Your task to perform on an android device: turn off priority inbox in the gmail app Image 0: 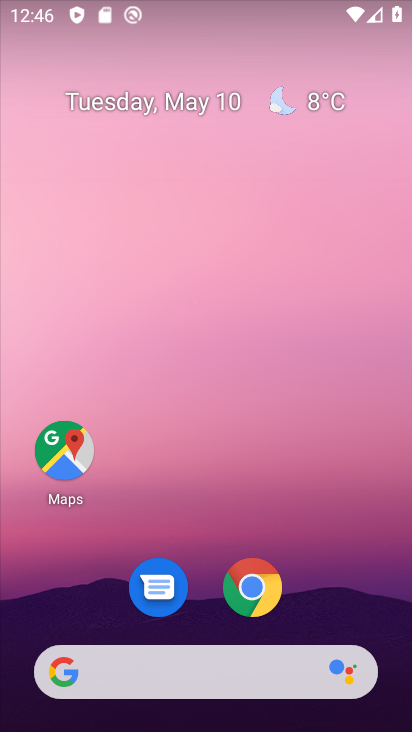
Step 0: drag from (347, 569) to (298, 125)
Your task to perform on an android device: turn off priority inbox in the gmail app Image 1: 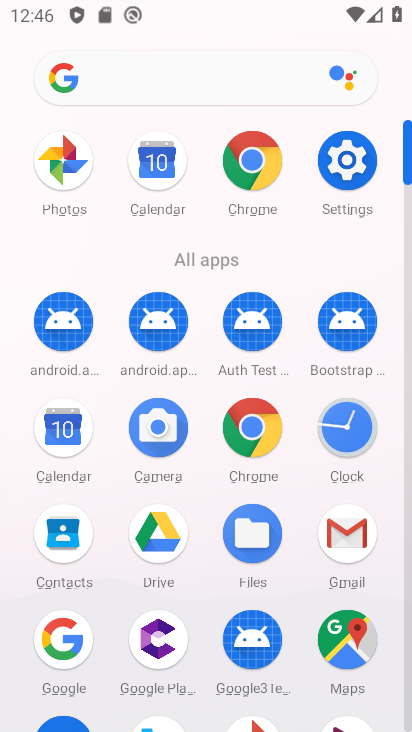
Step 1: click (353, 531)
Your task to perform on an android device: turn off priority inbox in the gmail app Image 2: 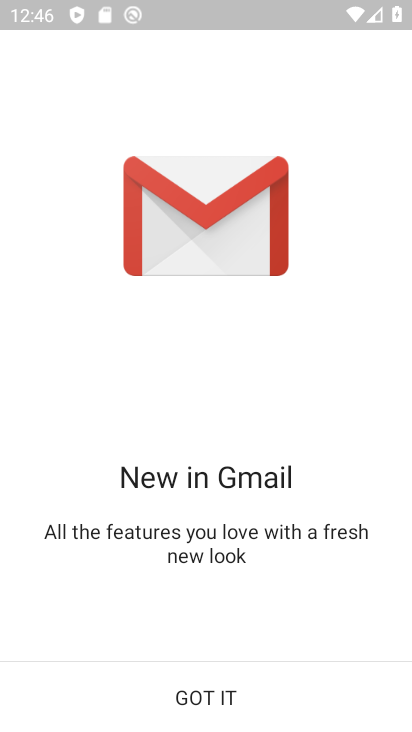
Step 2: click (228, 695)
Your task to perform on an android device: turn off priority inbox in the gmail app Image 3: 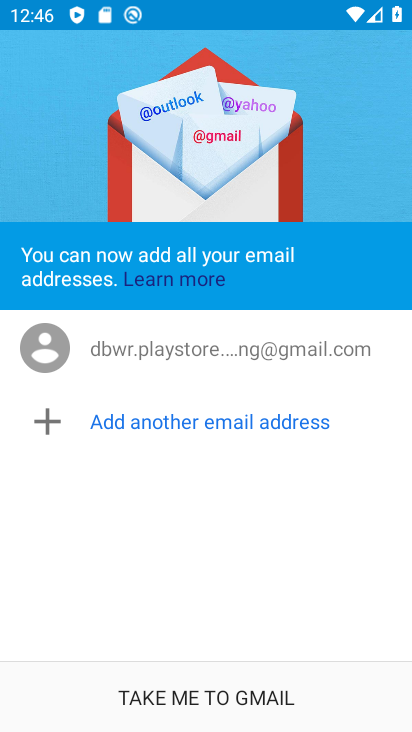
Step 3: click (195, 695)
Your task to perform on an android device: turn off priority inbox in the gmail app Image 4: 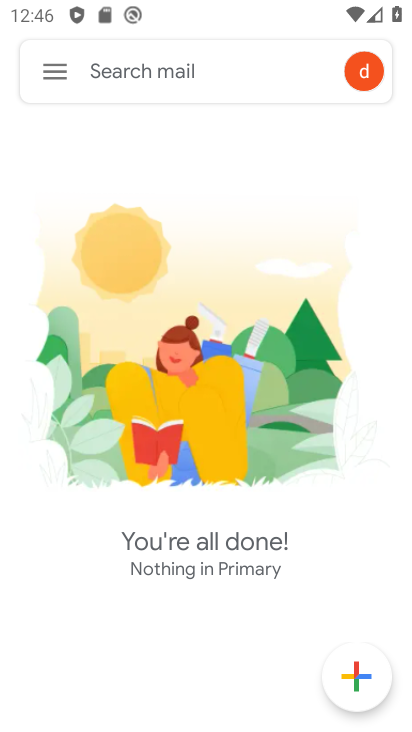
Step 4: click (64, 75)
Your task to perform on an android device: turn off priority inbox in the gmail app Image 5: 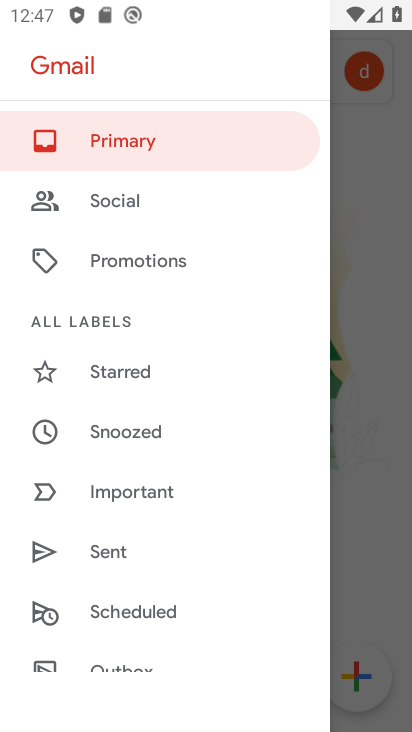
Step 5: drag from (165, 605) to (117, 230)
Your task to perform on an android device: turn off priority inbox in the gmail app Image 6: 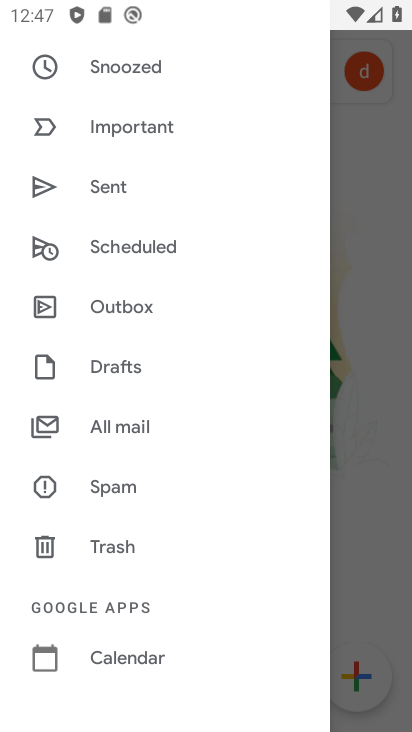
Step 6: drag from (143, 587) to (129, 367)
Your task to perform on an android device: turn off priority inbox in the gmail app Image 7: 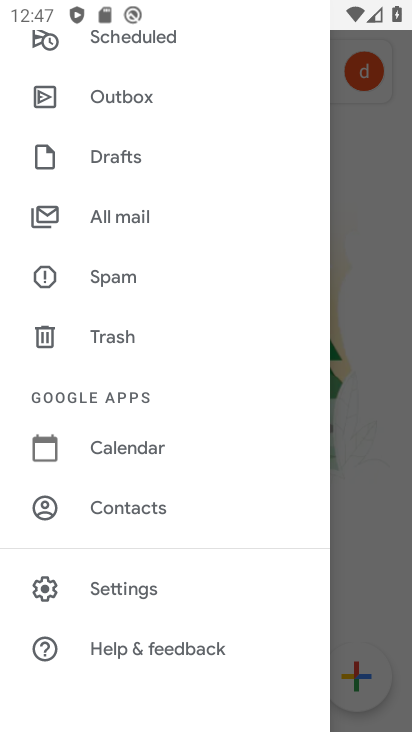
Step 7: click (119, 577)
Your task to perform on an android device: turn off priority inbox in the gmail app Image 8: 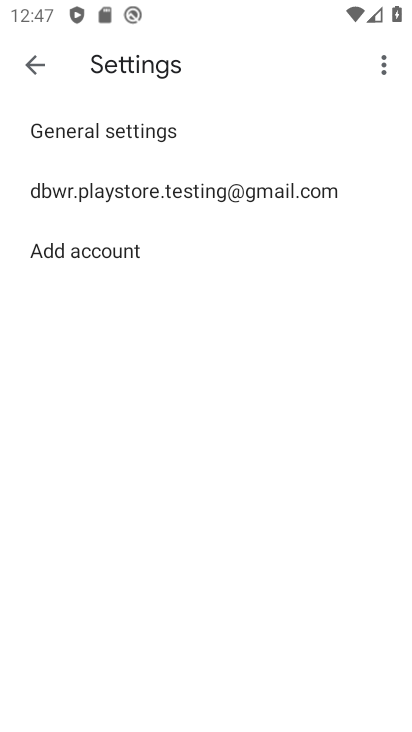
Step 8: click (136, 196)
Your task to perform on an android device: turn off priority inbox in the gmail app Image 9: 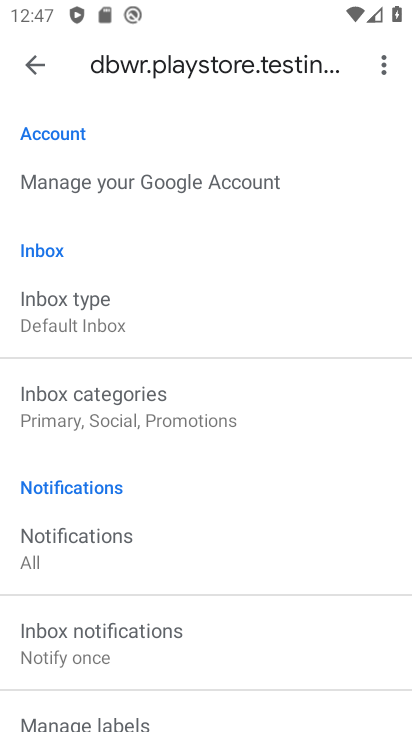
Step 9: click (111, 310)
Your task to perform on an android device: turn off priority inbox in the gmail app Image 10: 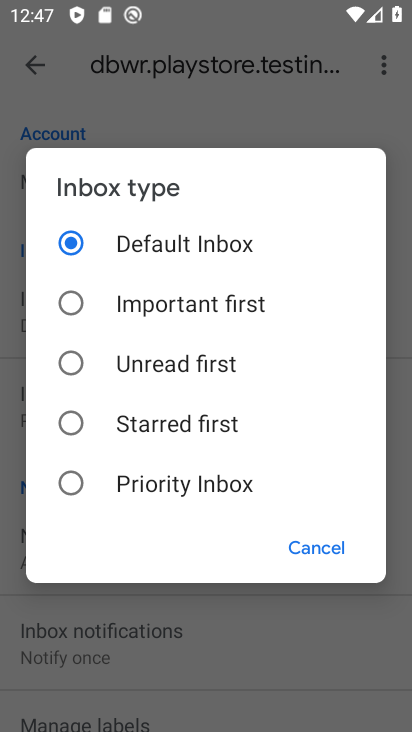
Step 10: task complete